Your task to perform on an android device: Open settings Image 0: 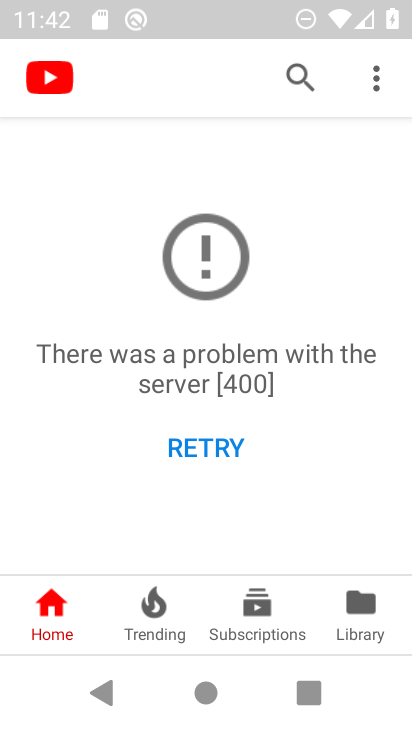
Step 0: press home button
Your task to perform on an android device: Open settings Image 1: 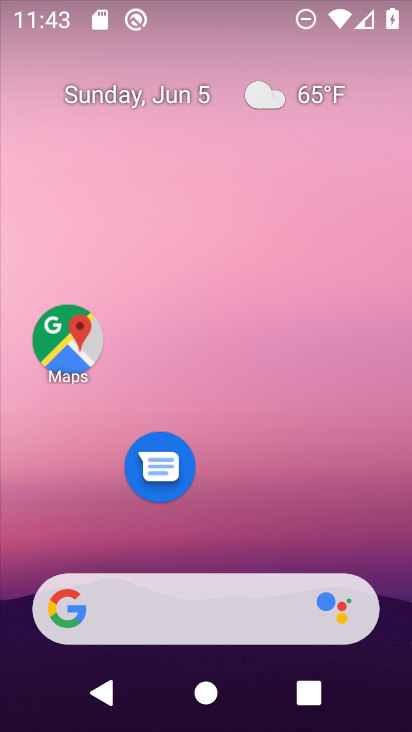
Step 1: drag from (332, 515) to (387, 21)
Your task to perform on an android device: Open settings Image 2: 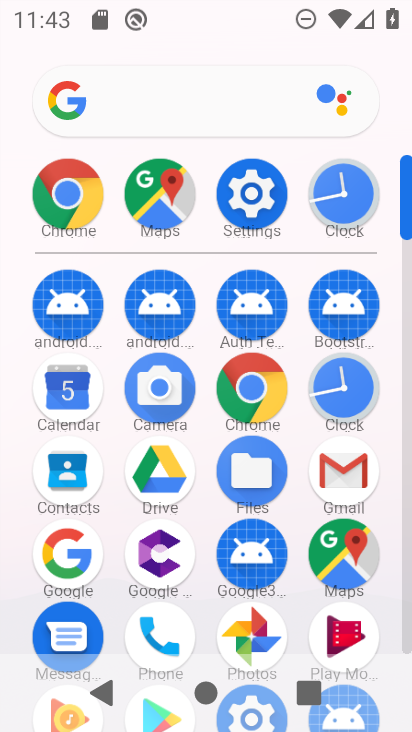
Step 2: click (242, 182)
Your task to perform on an android device: Open settings Image 3: 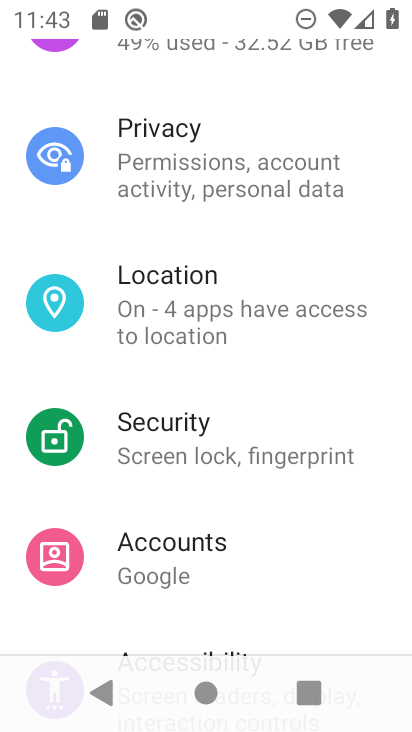
Step 3: task complete